Your task to perform on an android device: turn off data saver in the chrome app Image 0: 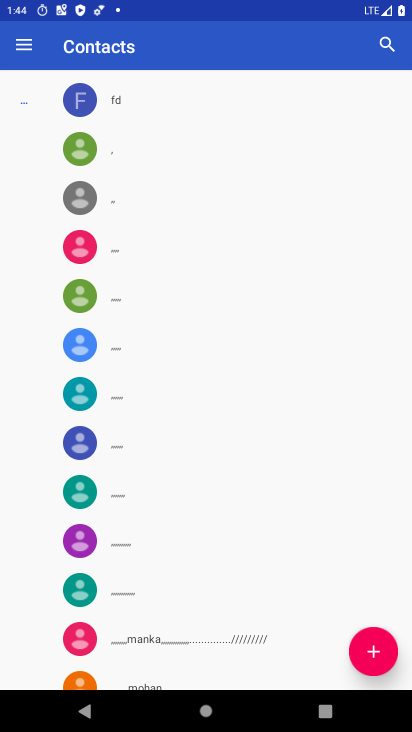
Step 0: press home button
Your task to perform on an android device: turn off data saver in the chrome app Image 1: 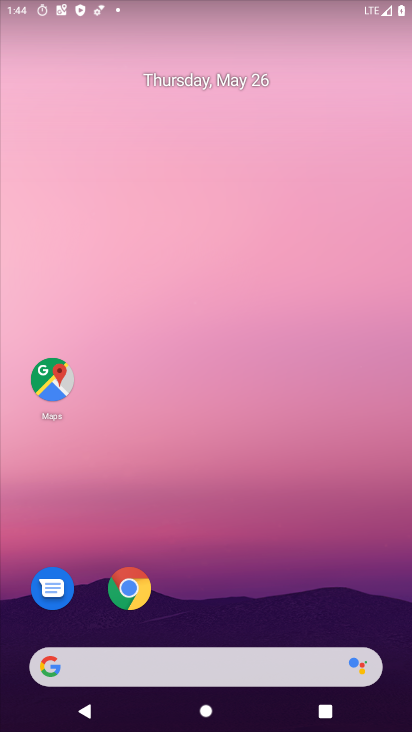
Step 1: click (134, 574)
Your task to perform on an android device: turn off data saver in the chrome app Image 2: 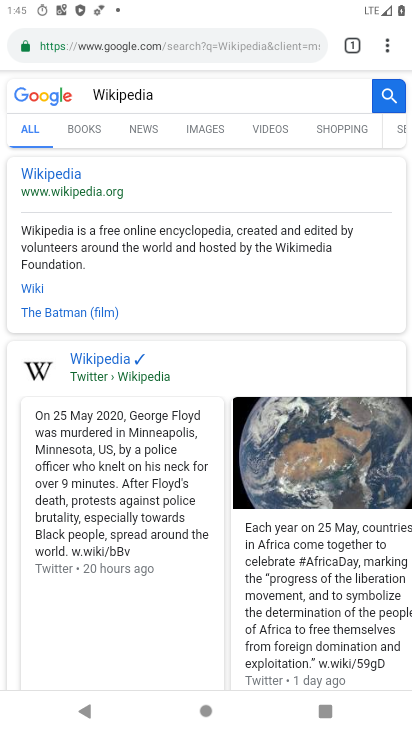
Step 2: click (321, 40)
Your task to perform on an android device: turn off data saver in the chrome app Image 3: 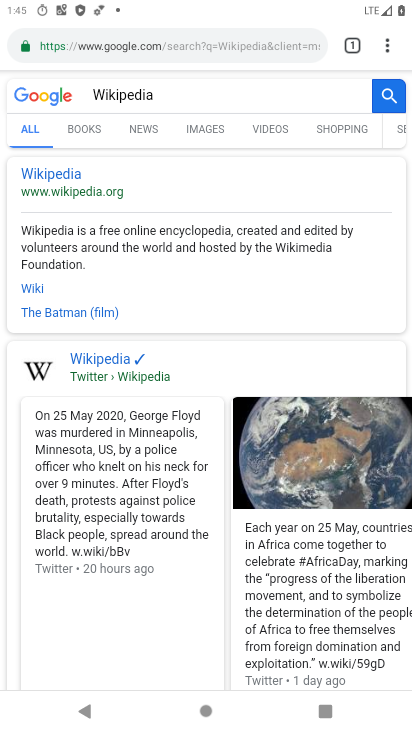
Step 3: click (316, 45)
Your task to perform on an android device: turn off data saver in the chrome app Image 4: 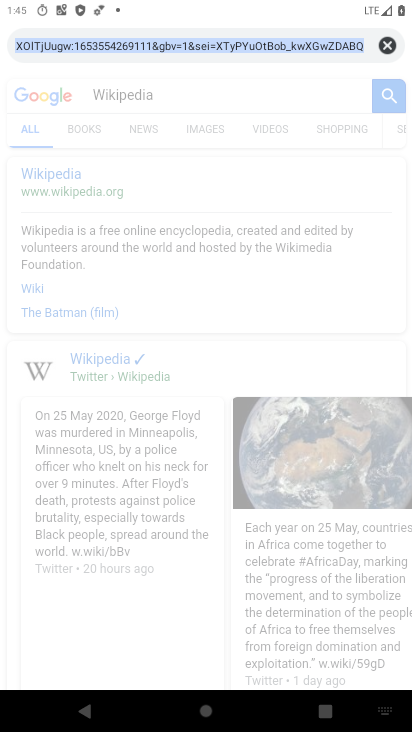
Step 4: press back button
Your task to perform on an android device: turn off data saver in the chrome app Image 5: 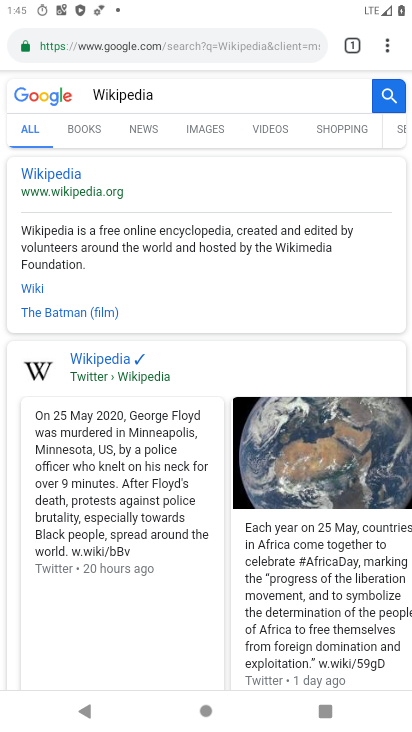
Step 5: click (385, 41)
Your task to perform on an android device: turn off data saver in the chrome app Image 6: 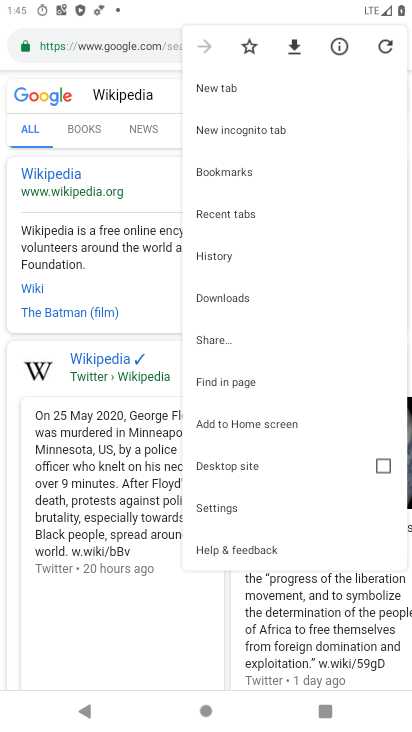
Step 6: click (227, 511)
Your task to perform on an android device: turn off data saver in the chrome app Image 7: 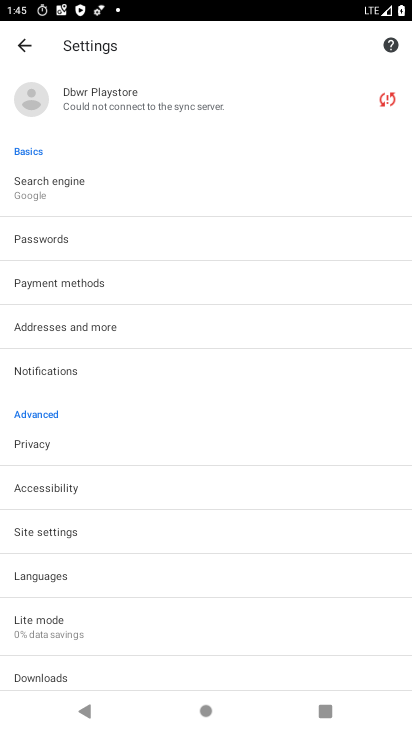
Step 7: click (48, 625)
Your task to perform on an android device: turn off data saver in the chrome app Image 8: 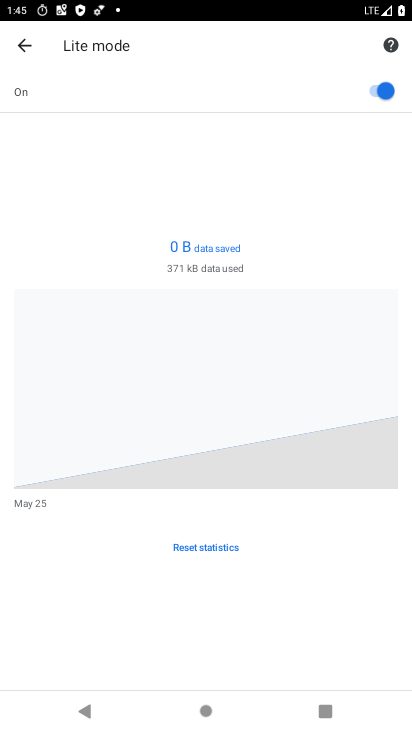
Step 8: click (368, 87)
Your task to perform on an android device: turn off data saver in the chrome app Image 9: 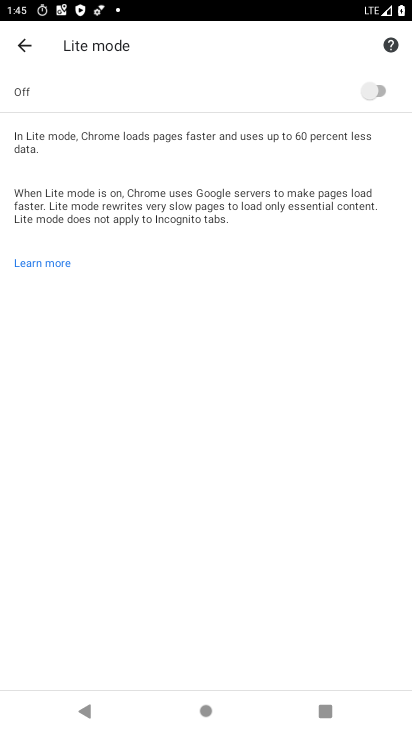
Step 9: task complete